Your task to perform on an android device: Open my contact list Image 0: 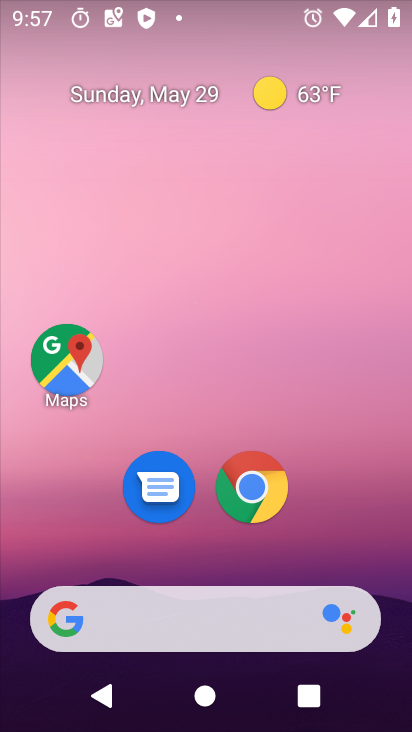
Step 0: drag from (208, 562) to (266, 131)
Your task to perform on an android device: Open my contact list Image 1: 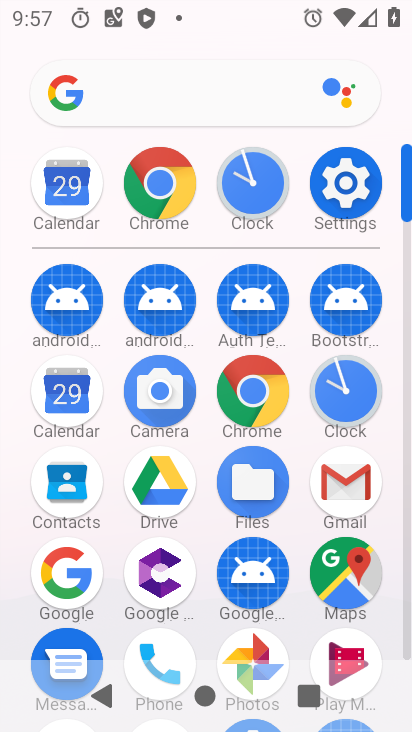
Step 1: click (76, 492)
Your task to perform on an android device: Open my contact list Image 2: 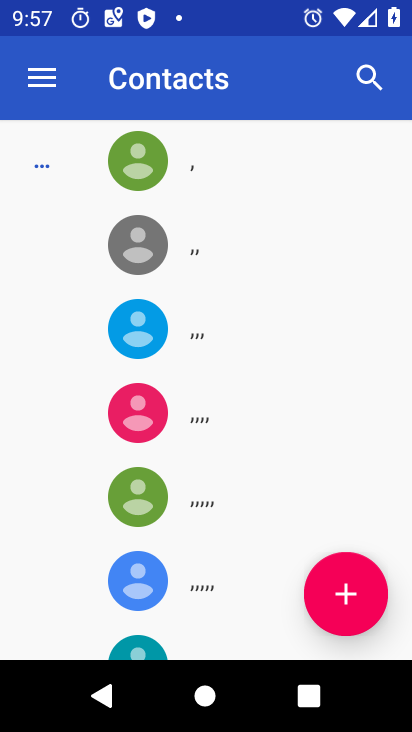
Step 2: task complete